Your task to perform on an android device: Go to notification settings Image 0: 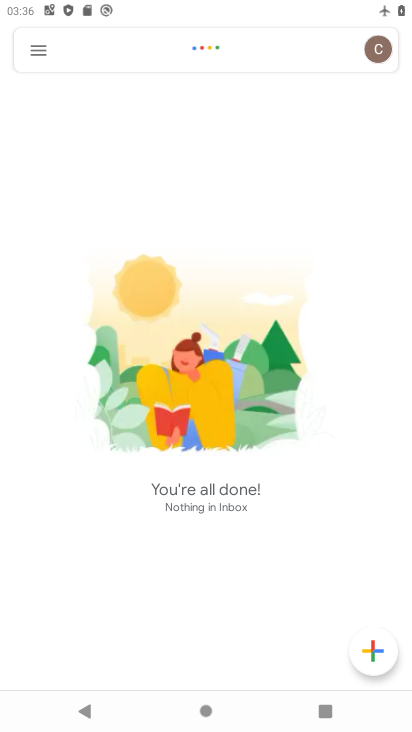
Step 0: press back button
Your task to perform on an android device: Go to notification settings Image 1: 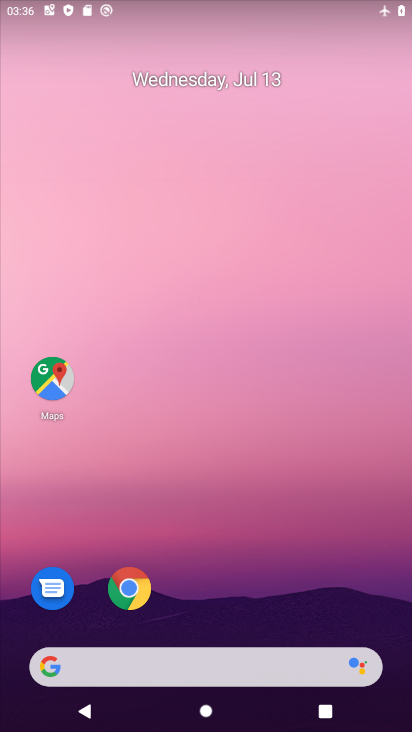
Step 1: drag from (254, 625) to (204, 70)
Your task to perform on an android device: Go to notification settings Image 2: 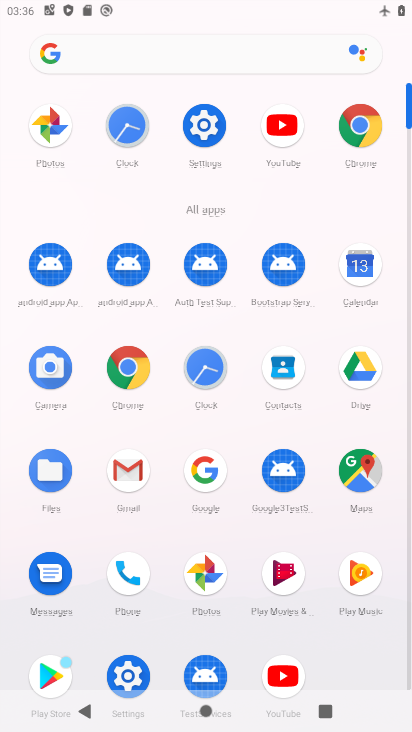
Step 2: click (133, 663)
Your task to perform on an android device: Go to notification settings Image 3: 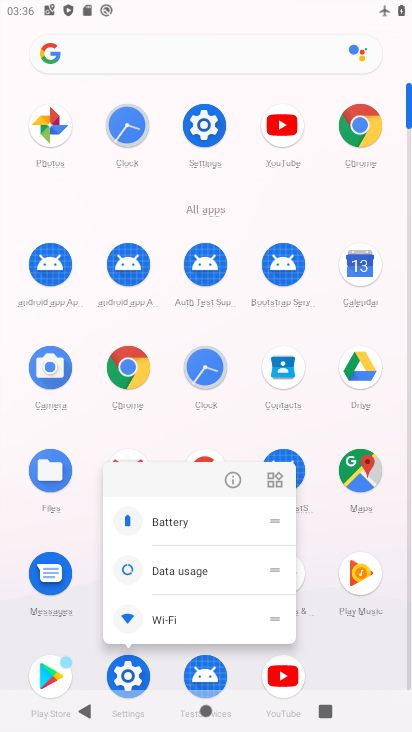
Step 3: click (148, 656)
Your task to perform on an android device: Go to notification settings Image 4: 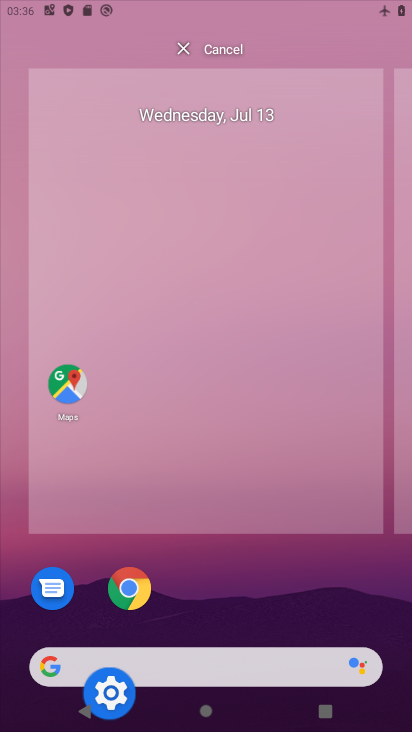
Step 4: click (128, 675)
Your task to perform on an android device: Go to notification settings Image 5: 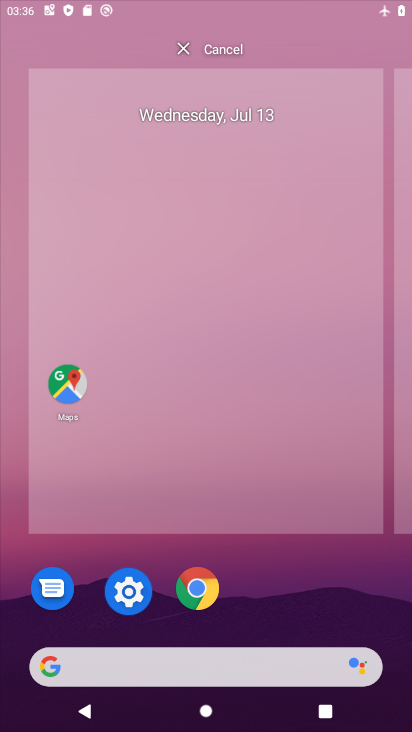
Step 5: click (128, 675)
Your task to perform on an android device: Go to notification settings Image 6: 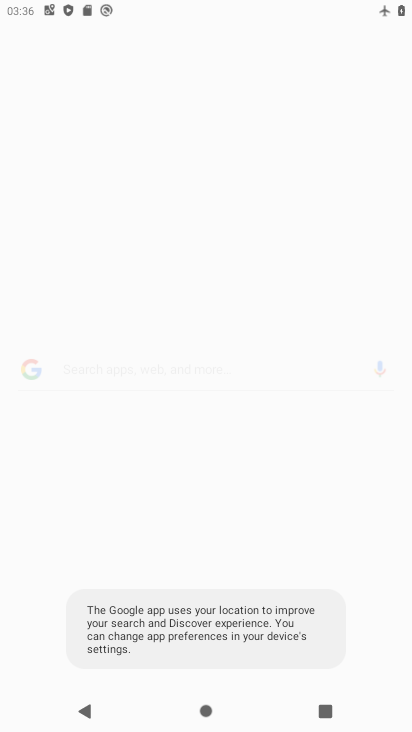
Step 6: click (129, 593)
Your task to perform on an android device: Go to notification settings Image 7: 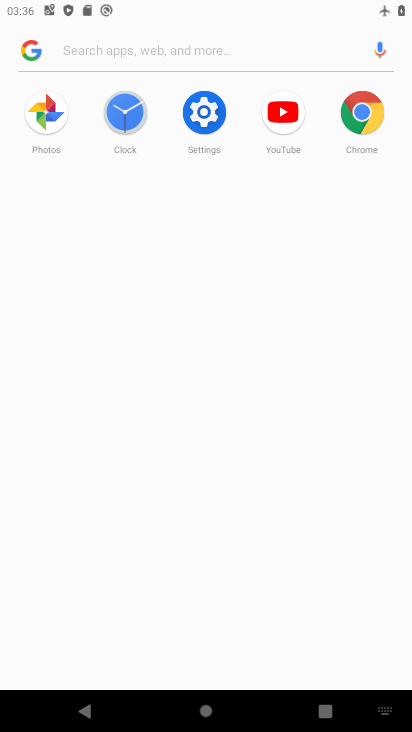
Step 7: click (194, 110)
Your task to perform on an android device: Go to notification settings Image 8: 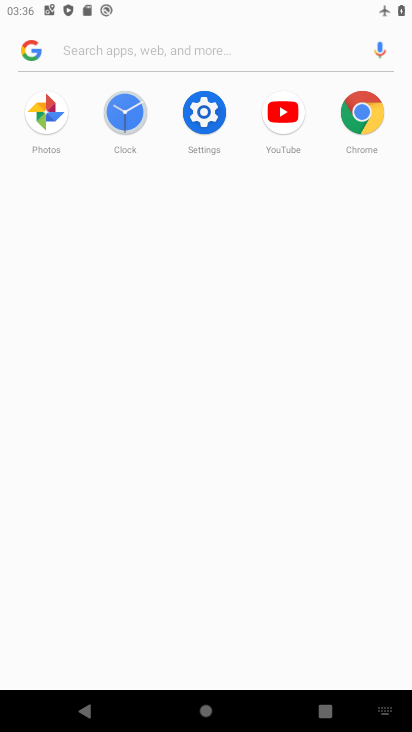
Step 8: click (198, 107)
Your task to perform on an android device: Go to notification settings Image 9: 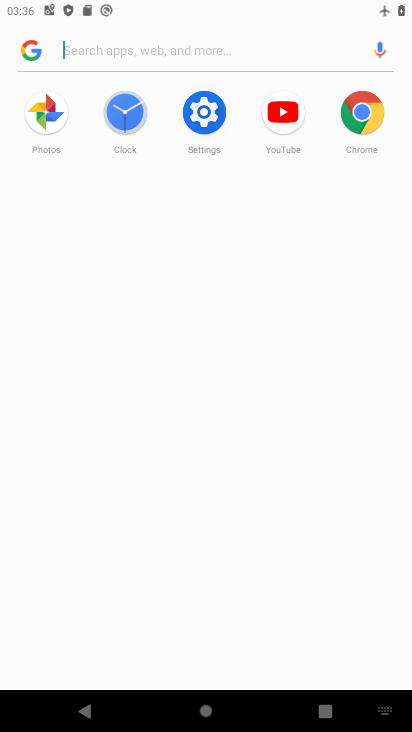
Step 9: click (204, 112)
Your task to perform on an android device: Go to notification settings Image 10: 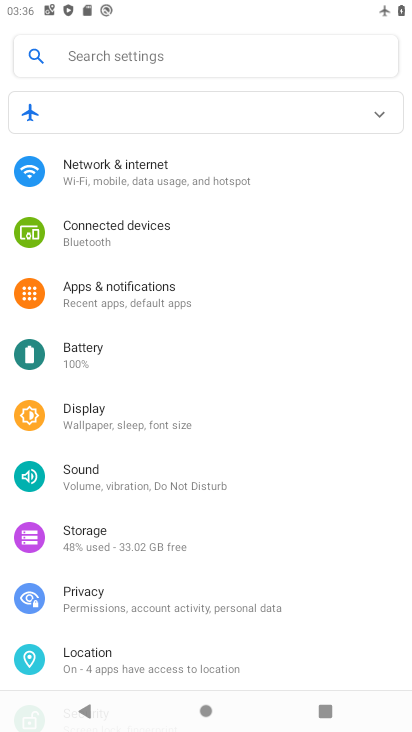
Step 10: click (116, 287)
Your task to perform on an android device: Go to notification settings Image 11: 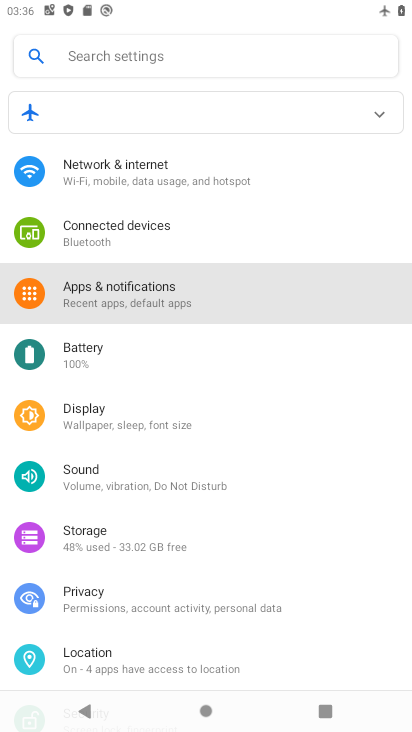
Step 11: click (125, 287)
Your task to perform on an android device: Go to notification settings Image 12: 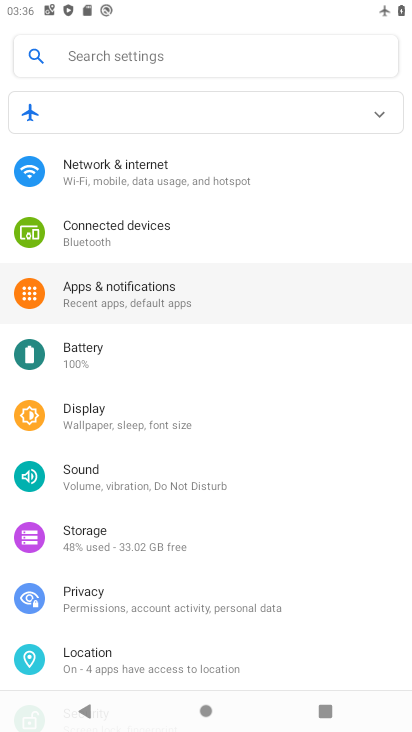
Step 12: click (130, 288)
Your task to perform on an android device: Go to notification settings Image 13: 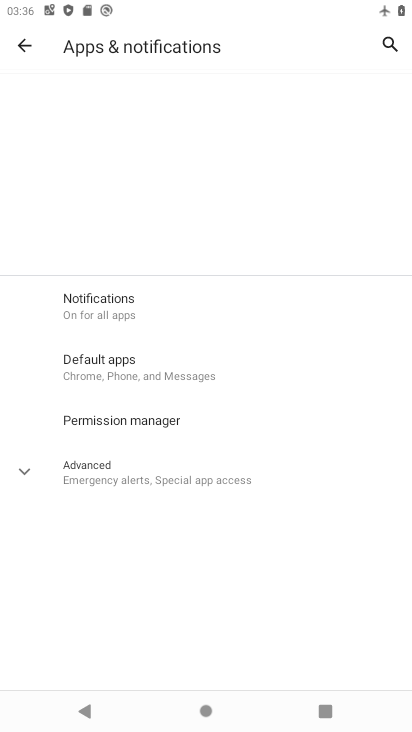
Step 13: click (130, 285)
Your task to perform on an android device: Go to notification settings Image 14: 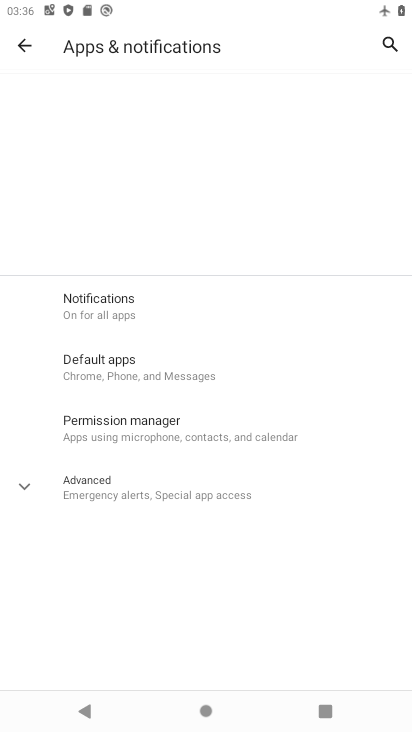
Step 14: click (115, 296)
Your task to perform on an android device: Go to notification settings Image 15: 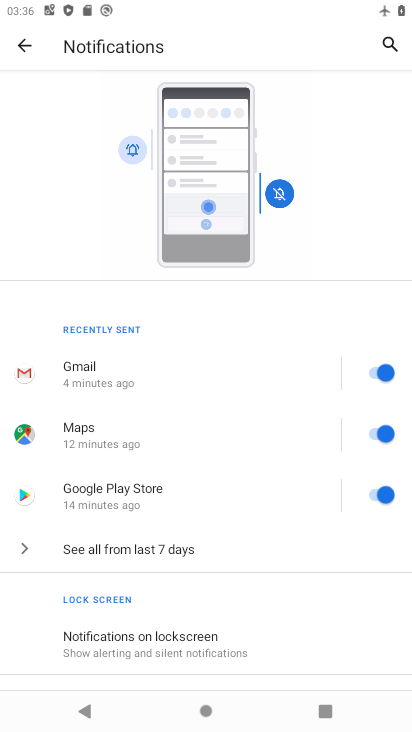
Step 15: click (138, 263)
Your task to perform on an android device: Go to notification settings Image 16: 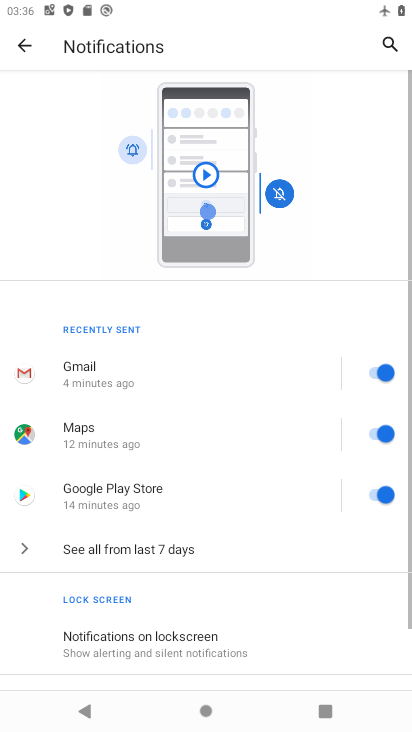
Step 16: task complete